Your task to perform on an android device: What's the weather going to be this weekend? Image 0: 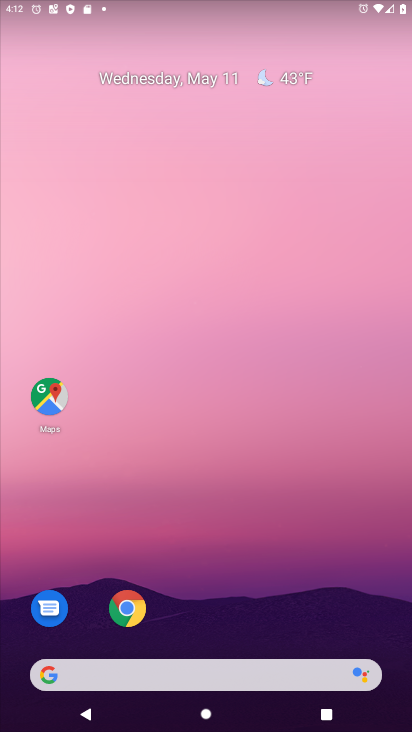
Step 0: click (265, 74)
Your task to perform on an android device: What's the weather going to be this weekend? Image 1: 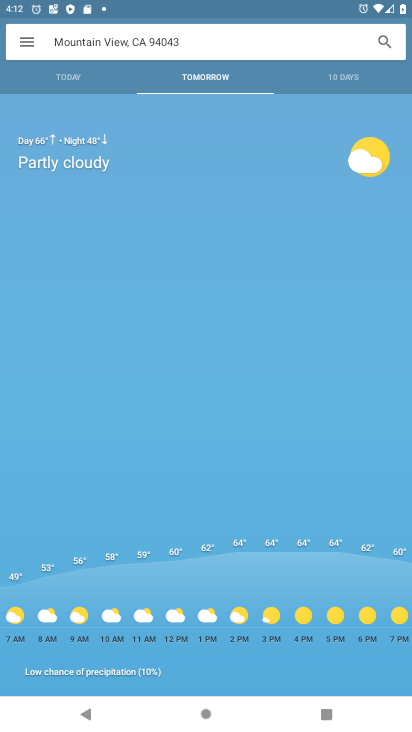
Step 1: drag from (345, 75) to (311, 75)
Your task to perform on an android device: What's the weather going to be this weekend? Image 2: 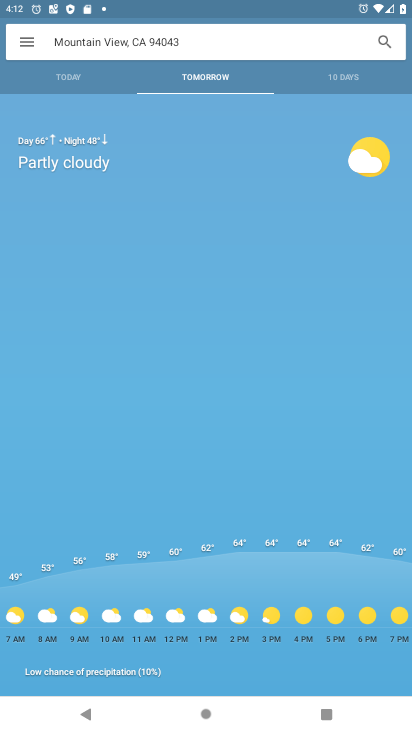
Step 2: click (340, 77)
Your task to perform on an android device: What's the weather going to be this weekend? Image 3: 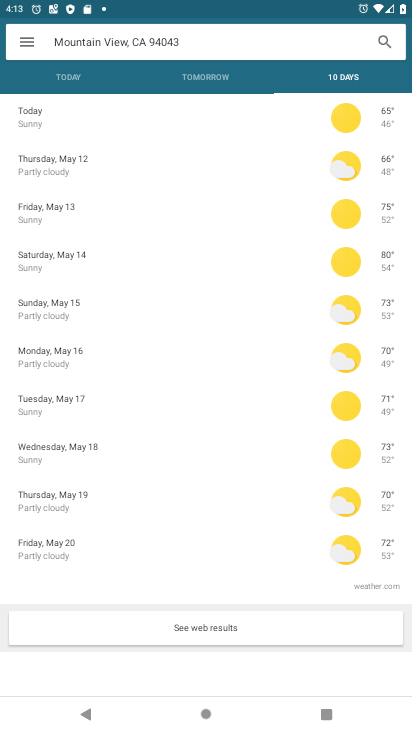
Step 3: click (33, 247)
Your task to perform on an android device: What's the weather going to be this weekend? Image 4: 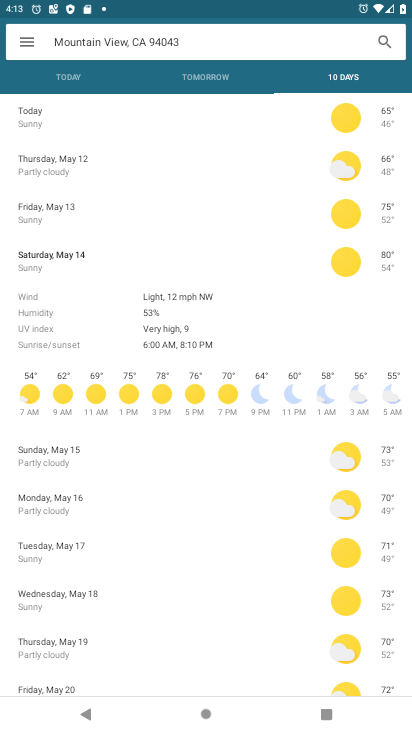
Step 4: task complete